Your task to perform on an android device: turn off data saver in the chrome app Image 0: 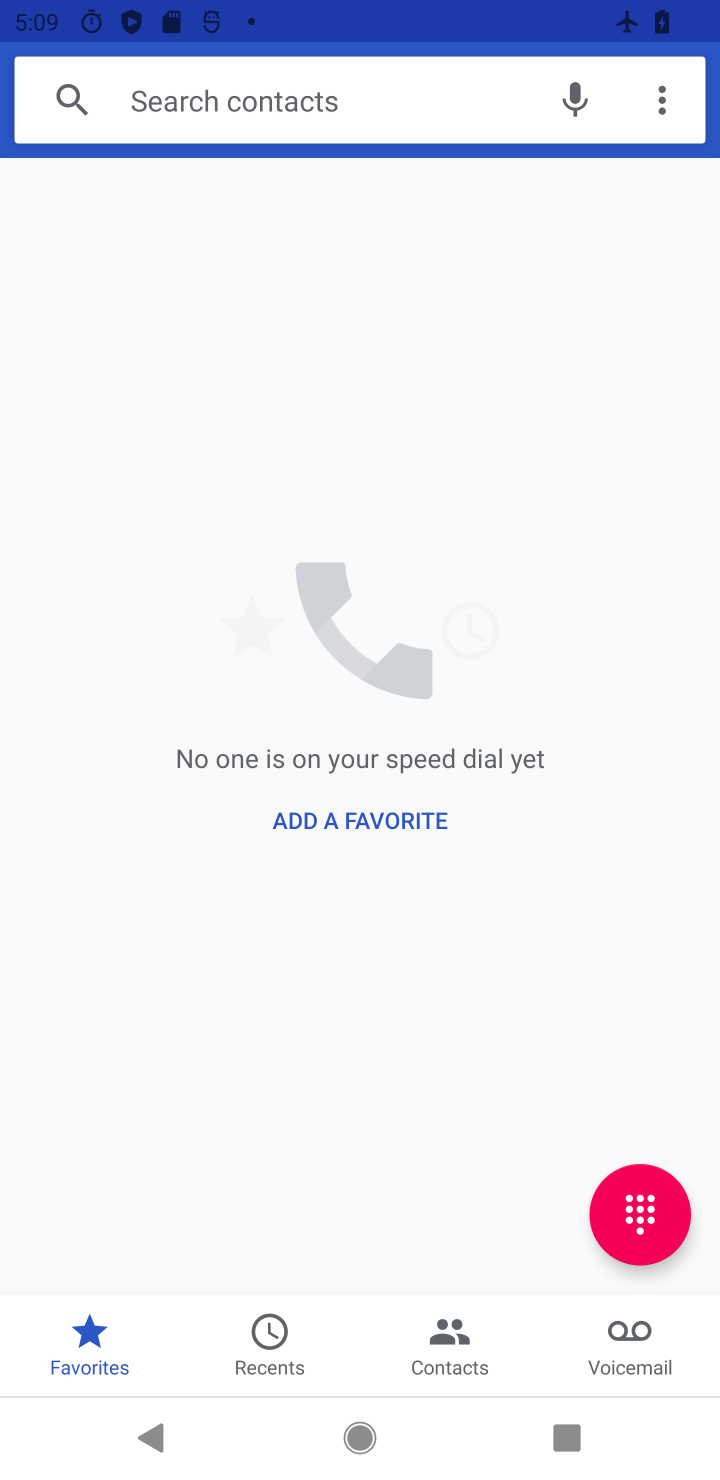
Step 0: click (44, 95)
Your task to perform on an android device: turn off data saver in the chrome app Image 1: 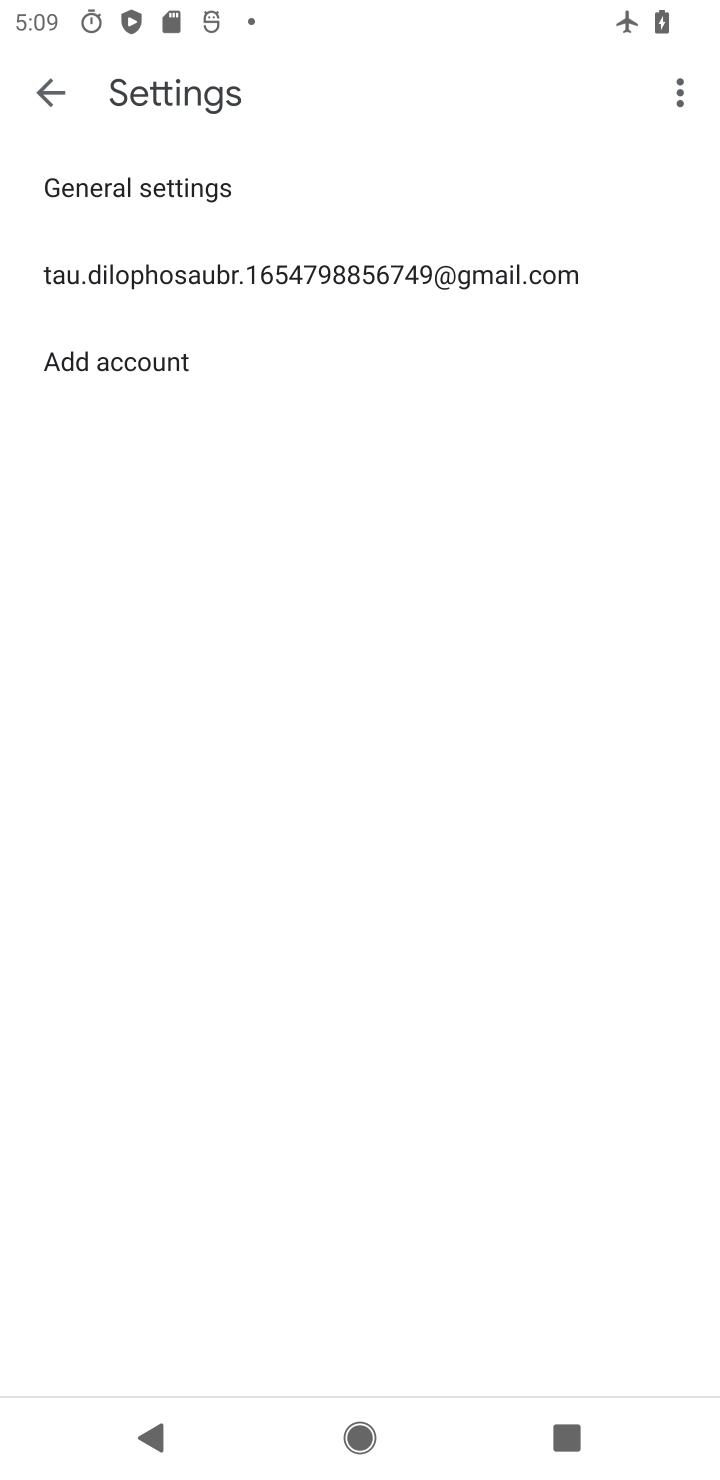
Step 1: press back button
Your task to perform on an android device: turn off data saver in the chrome app Image 2: 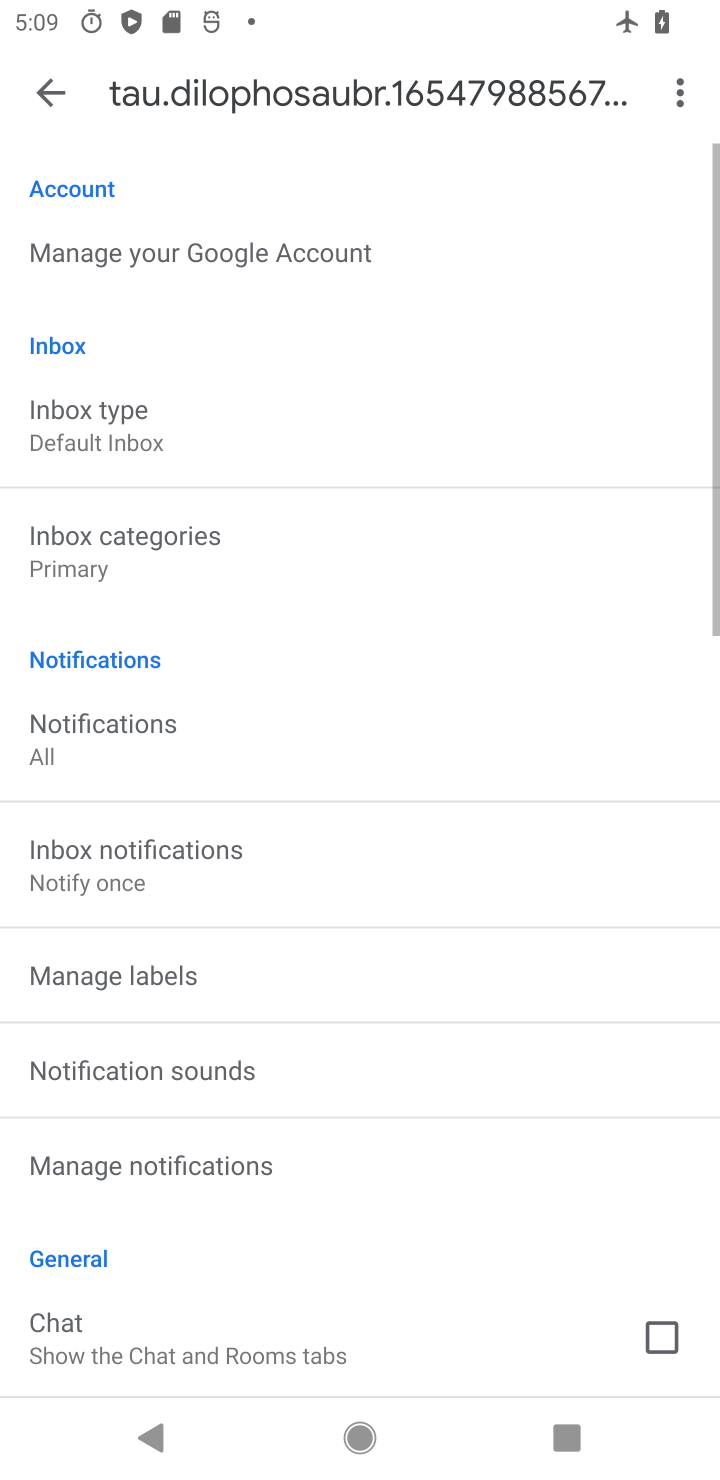
Step 2: click (45, 74)
Your task to perform on an android device: turn off data saver in the chrome app Image 3: 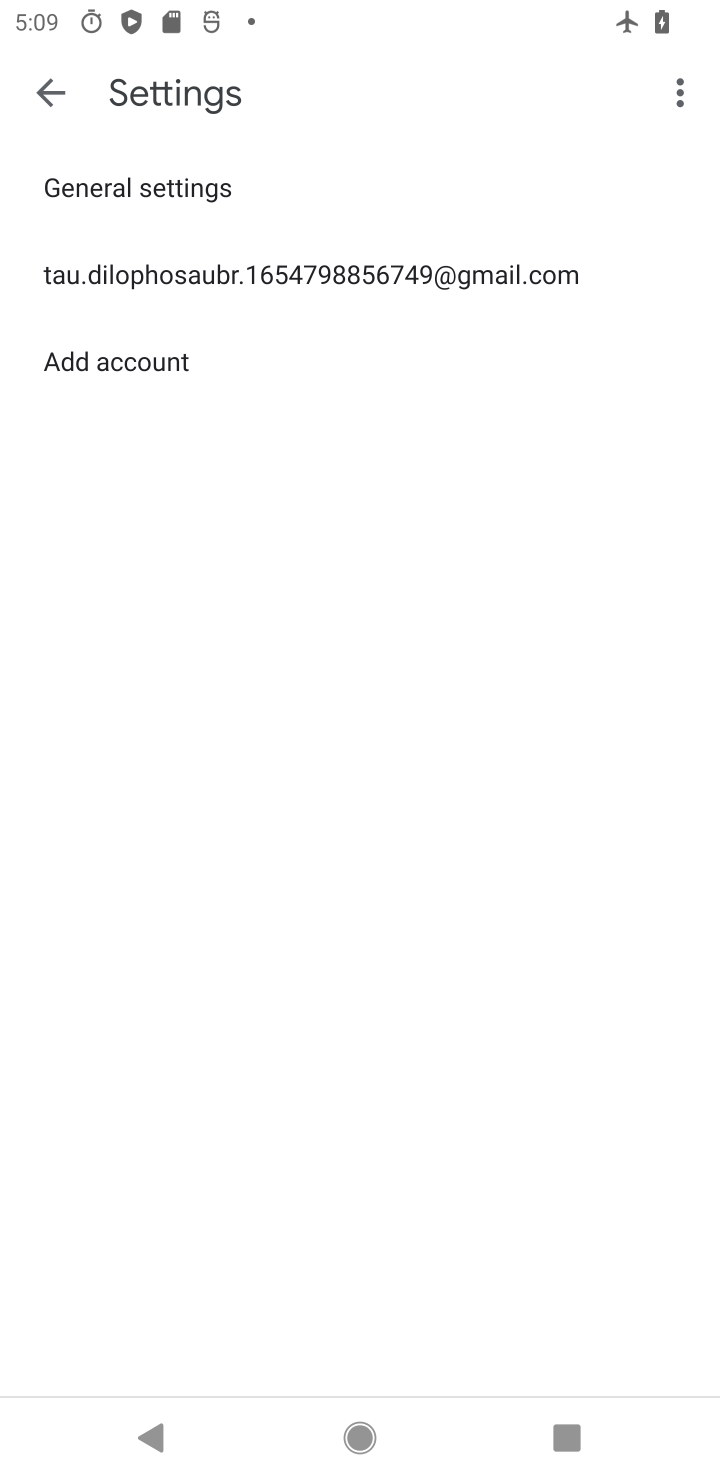
Step 3: click (38, 88)
Your task to perform on an android device: turn off data saver in the chrome app Image 4: 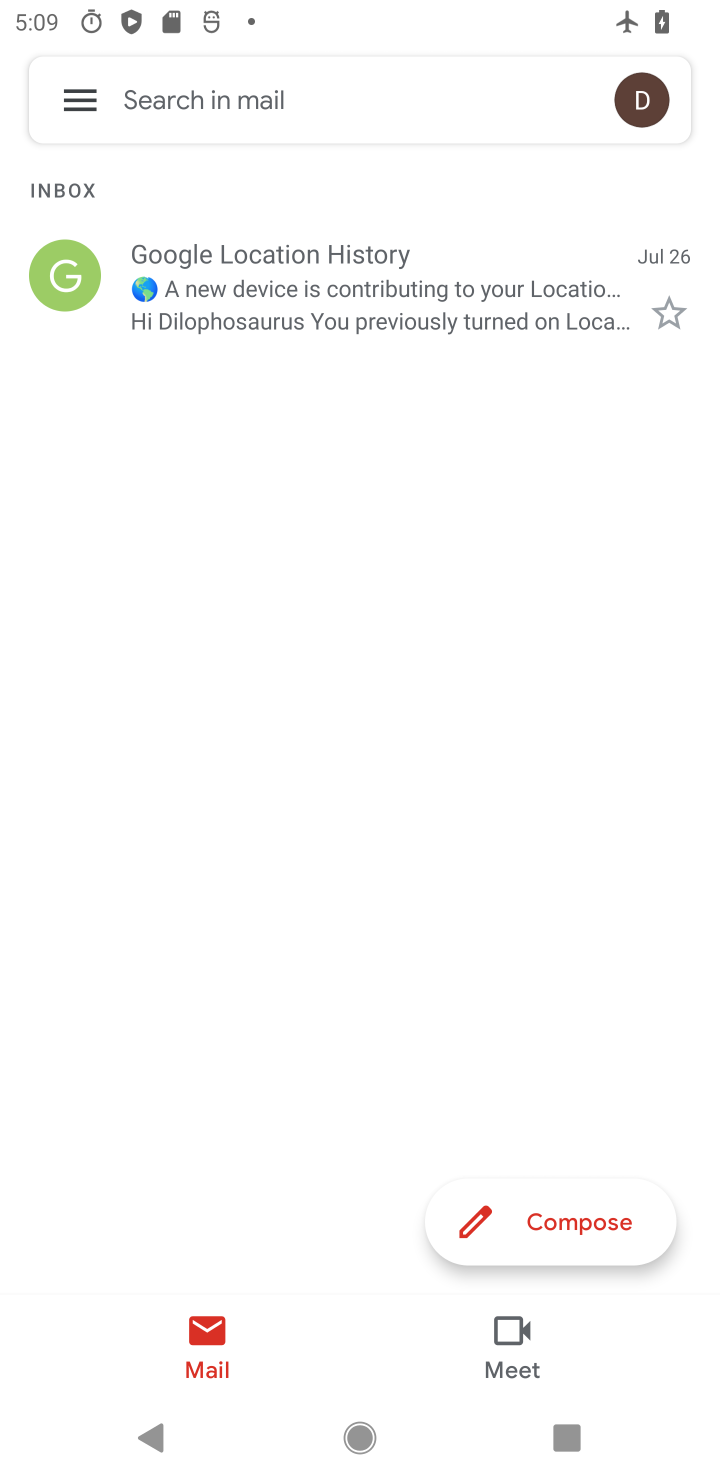
Step 4: press back button
Your task to perform on an android device: turn off data saver in the chrome app Image 5: 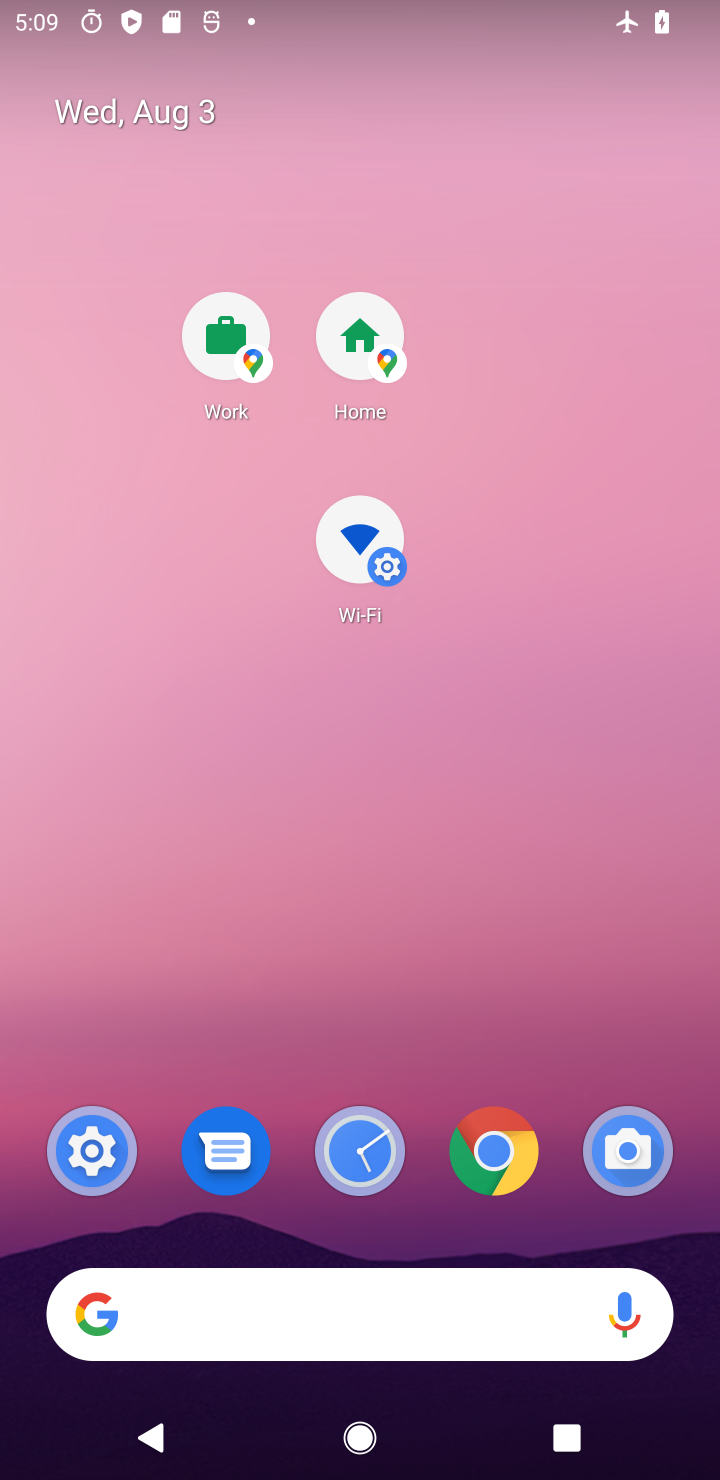
Step 5: drag from (423, 1262) to (227, 376)
Your task to perform on an android device: turn off data saver in the chrome app Image 6: 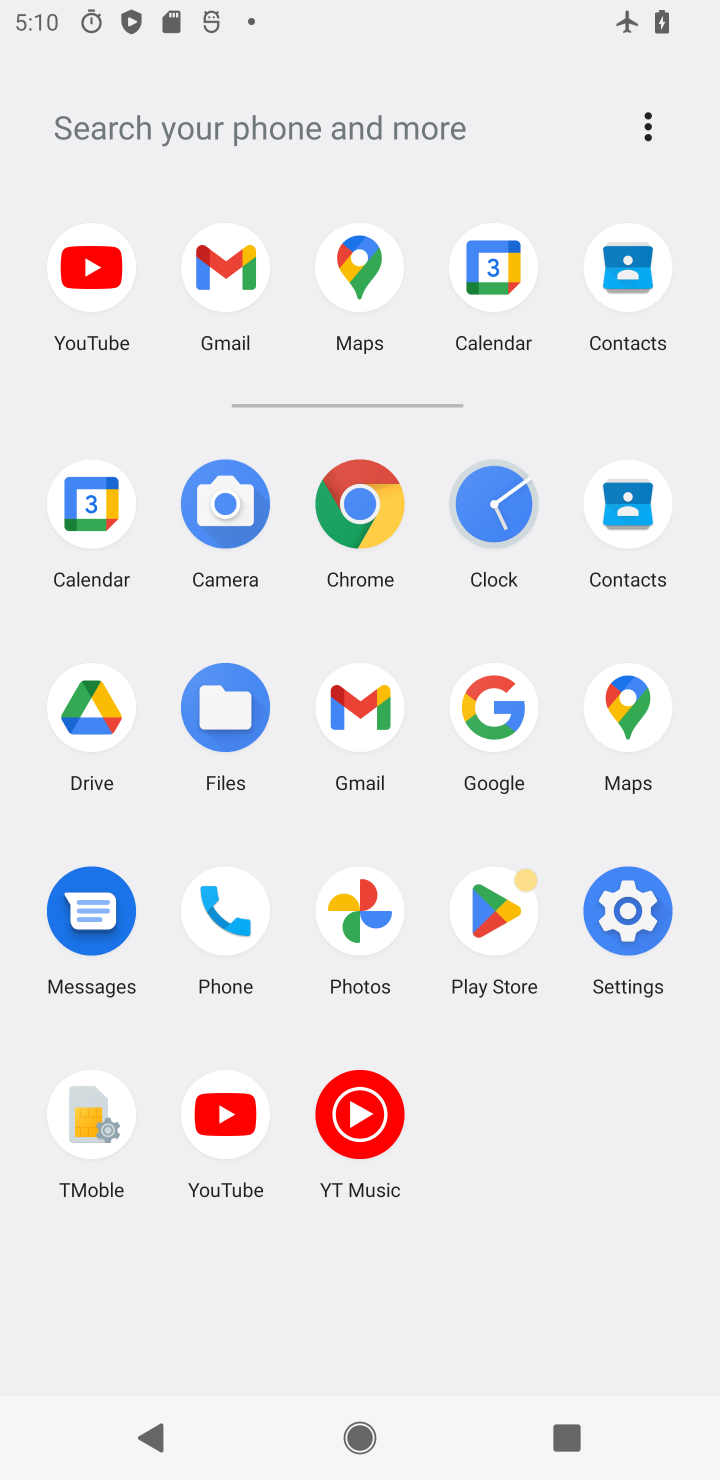
Step 6: click (354, 525)
Your task to perform on an android device: turn off data saver in the chrome app Image 7: 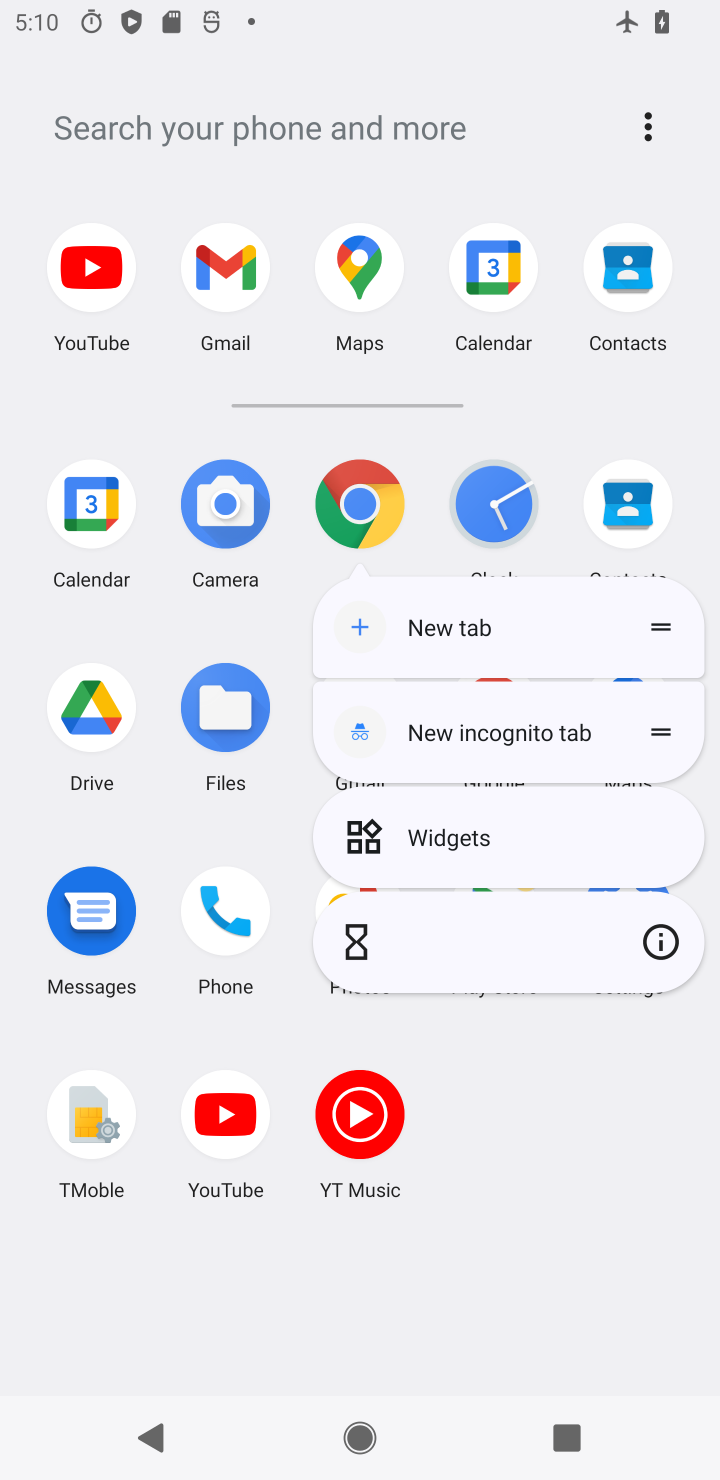
Step 7: click (349, 504)
Your task to perform on an android device: turn off data saver in the chrome app Image 8: 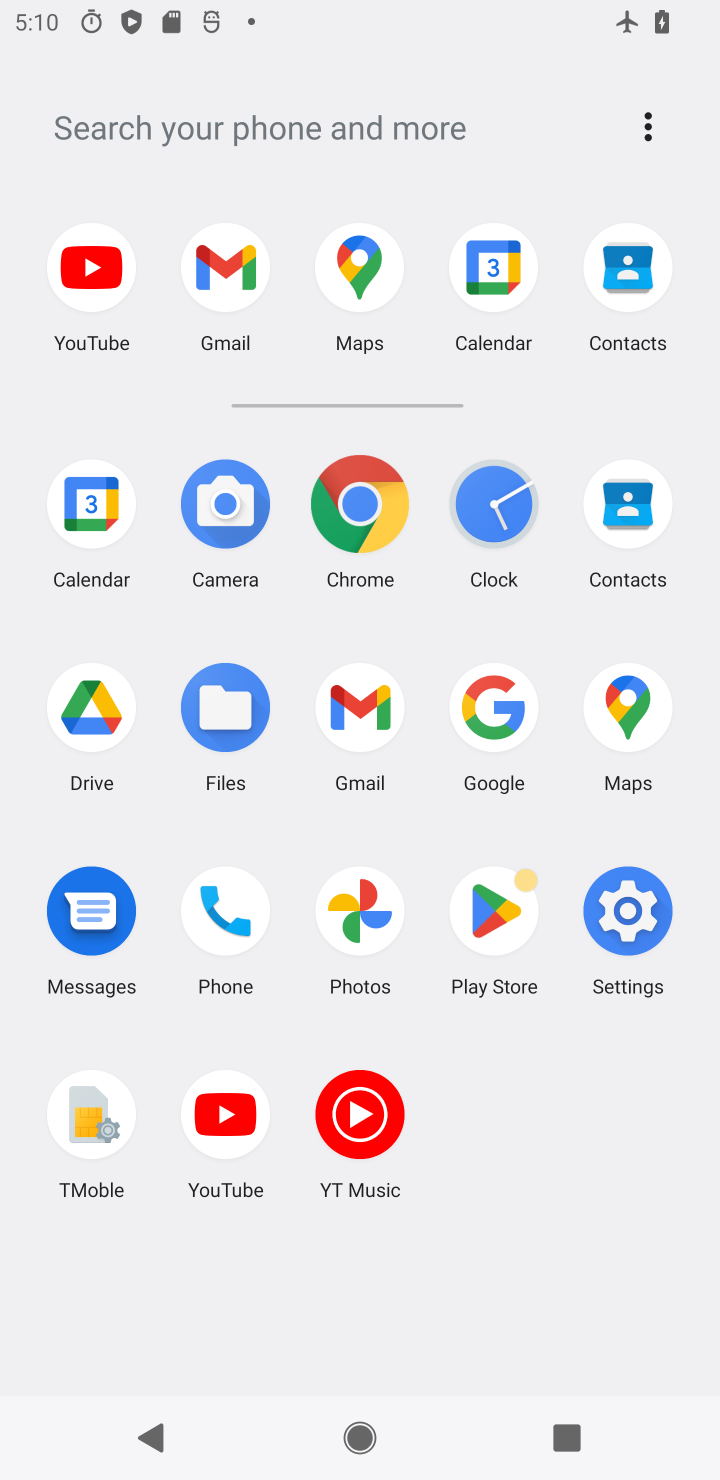
Step 8: click (349, 504)
Your task to perform on an android device: turn off data saver in the chrome app Image 9: 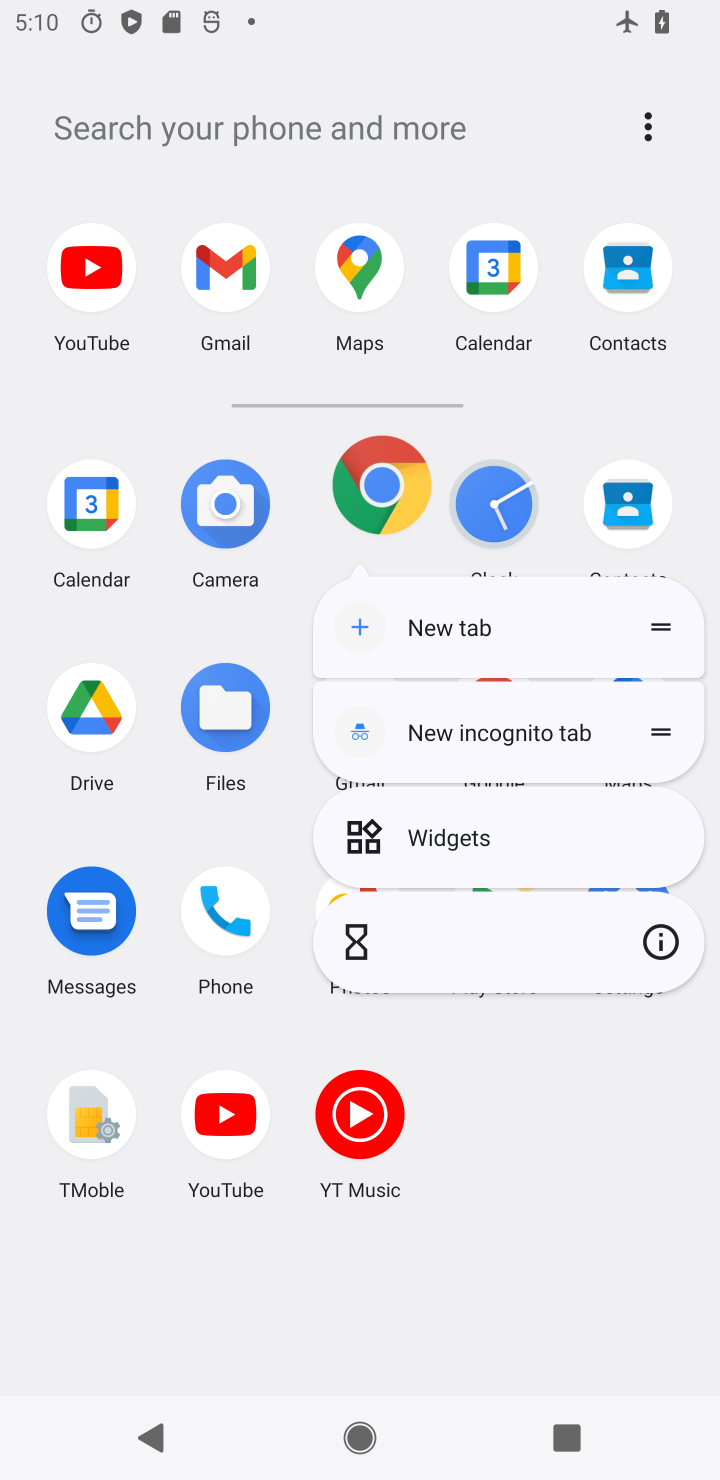
Step 9: click (365, 499)
Your task to perform on an android device: turn off data saver in the chrome app Image 10: 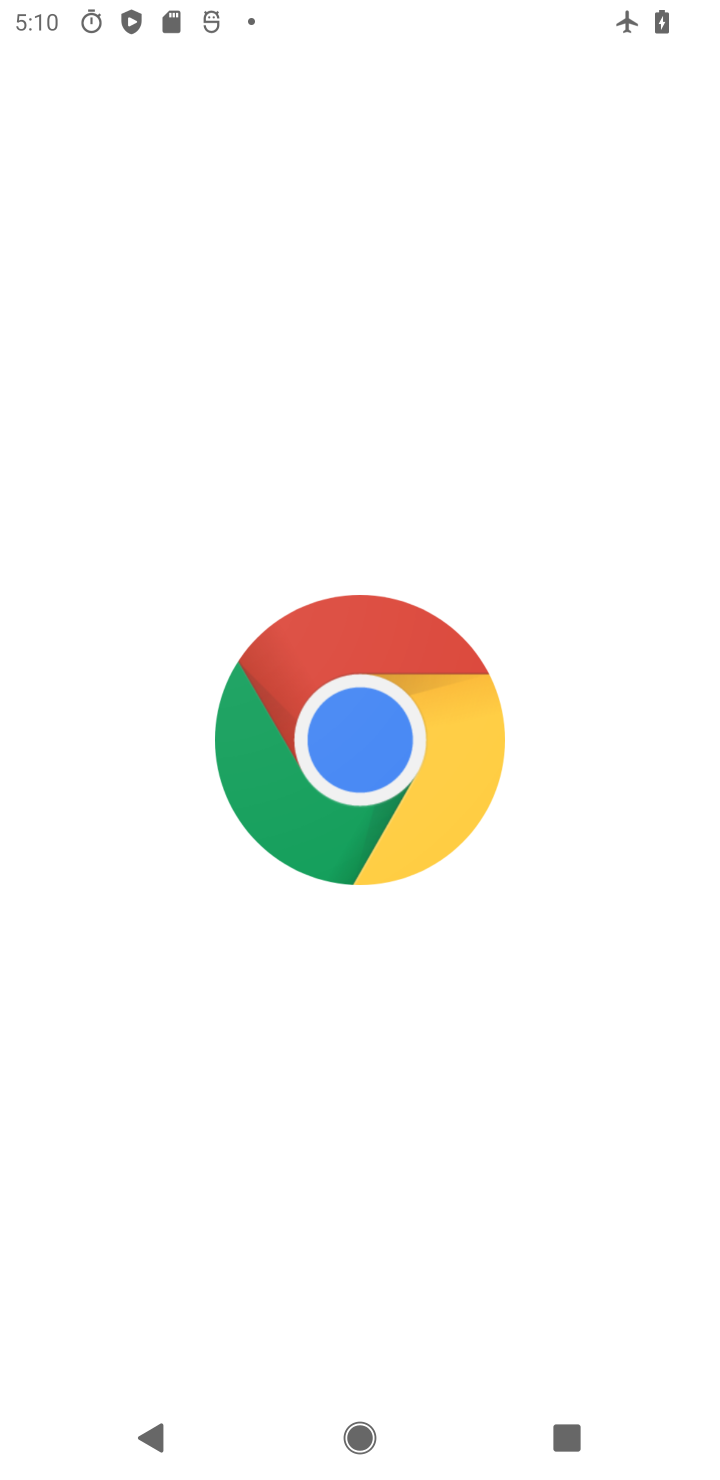
Step 10: click (344, 481)
Your task to perform on an android device: turn off data saver in the chrome app Image 11: 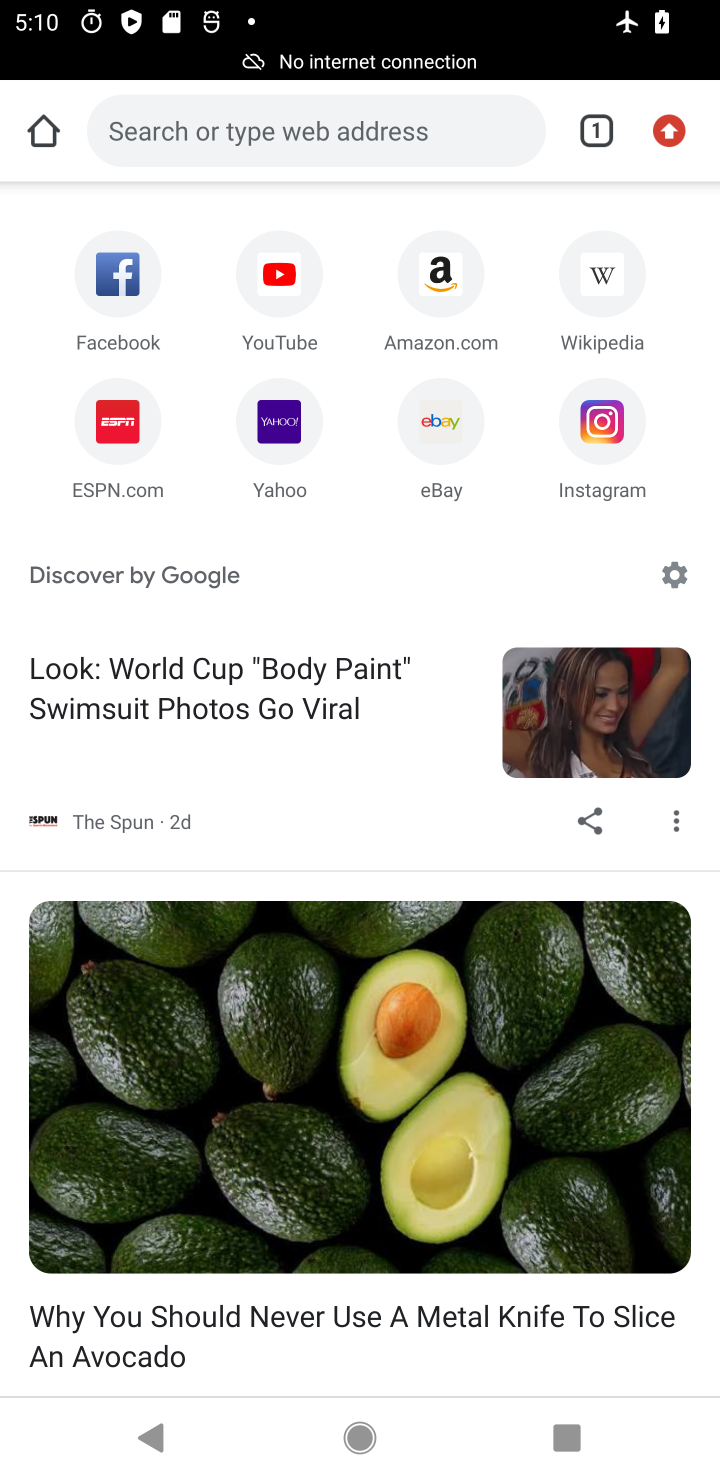
Step 11: drag from (713, 256) to (715, 765)
Your task to perform on an android device: turn off data saver in the chrome app Image 12: 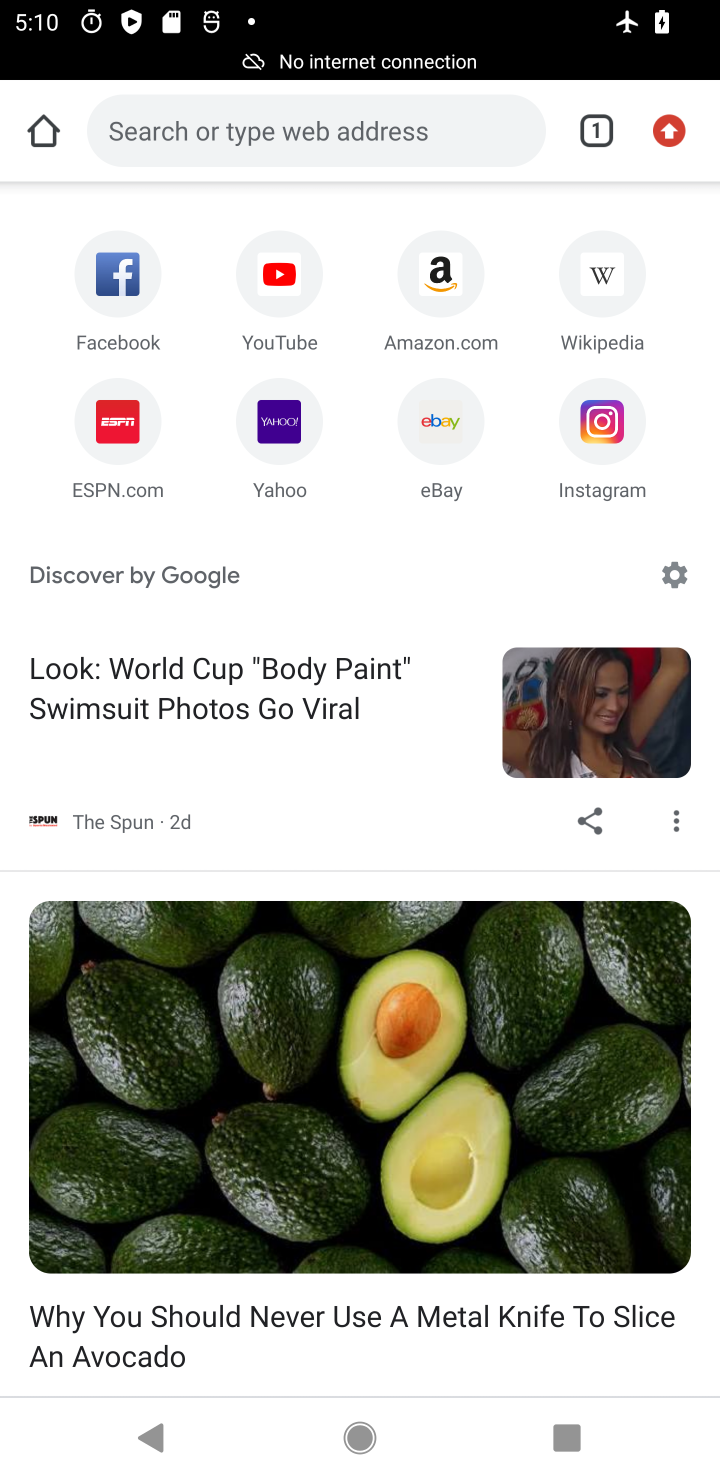
Step 12: drag from (661, 168) to (623, 916)
Your task to perform on an android device: turn off data saver in the chrome app Image 13: 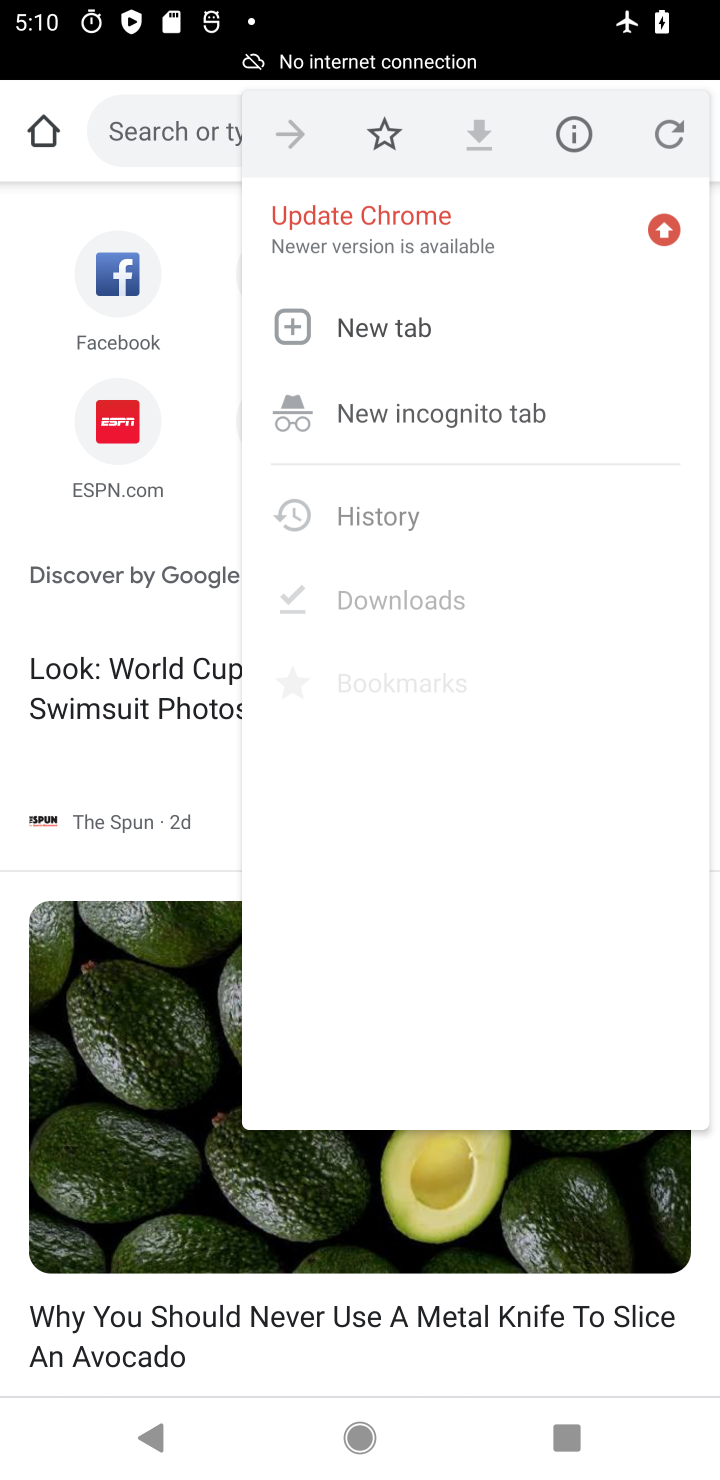
Step 13: drag from (665, 126) to (360, 1009)
Your task to perform on an android device: turn off data saver in the chrome app Image 14: 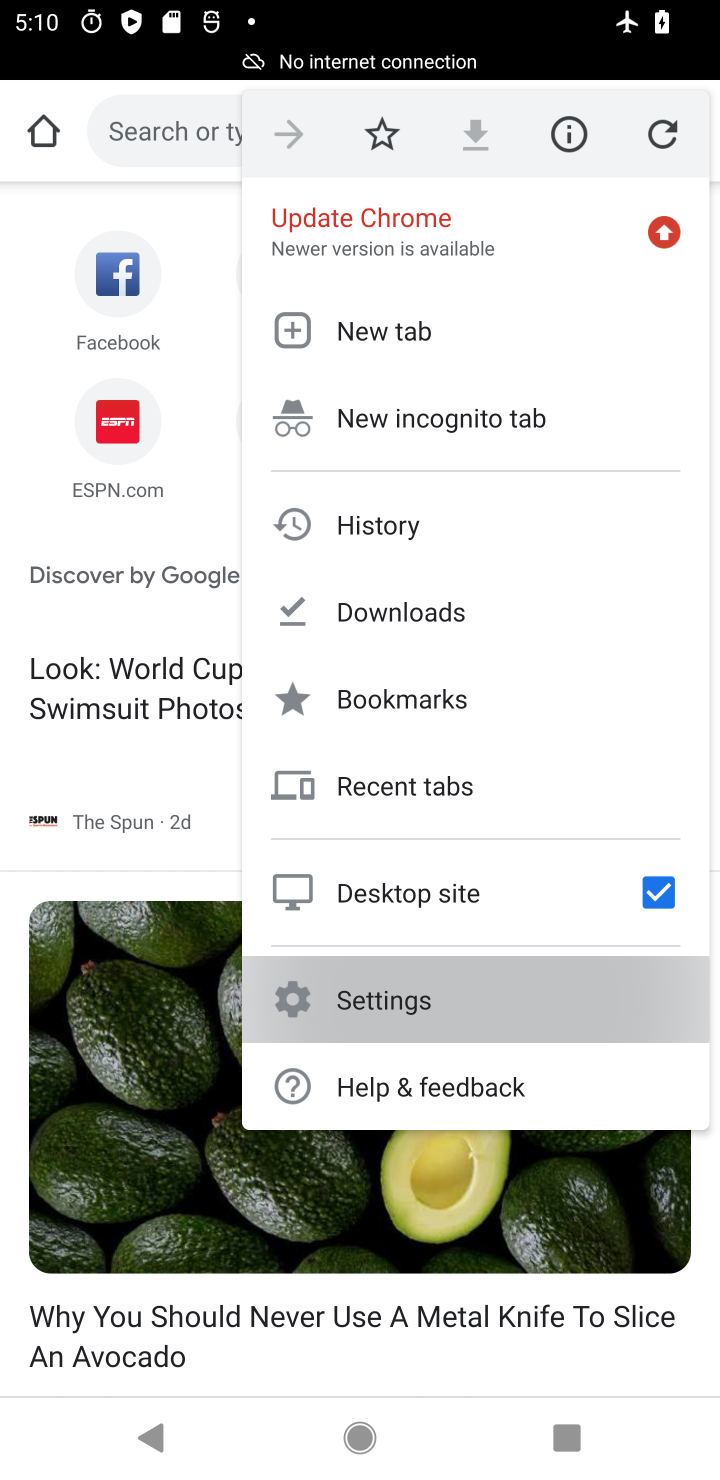
Step 14: click (360, 1011)
Your task to perform on an android device: turn off data saver in the chrome app Image 15: 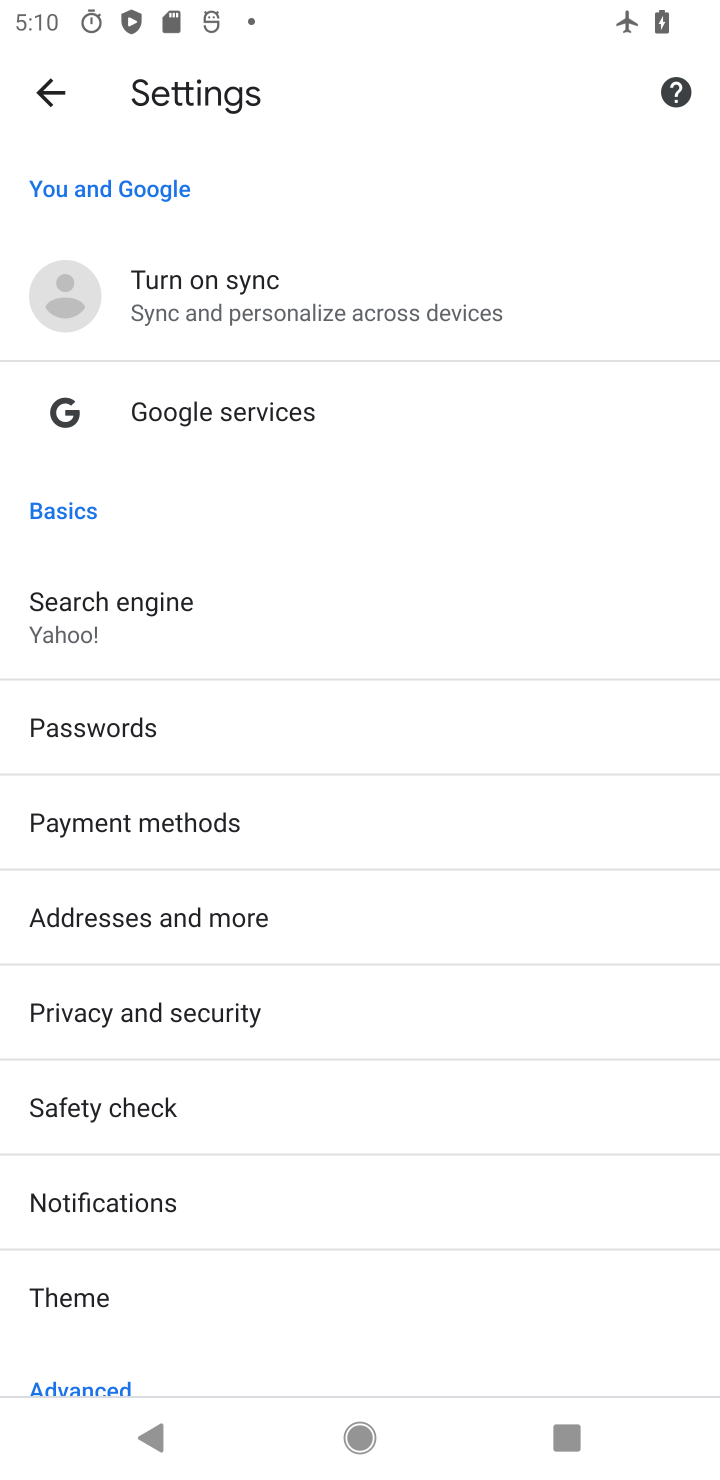
Step 15: drag from (112, 785) to (76, 437)
Your task to perform on an android device: turn off data saver in the chrome app Image 16: 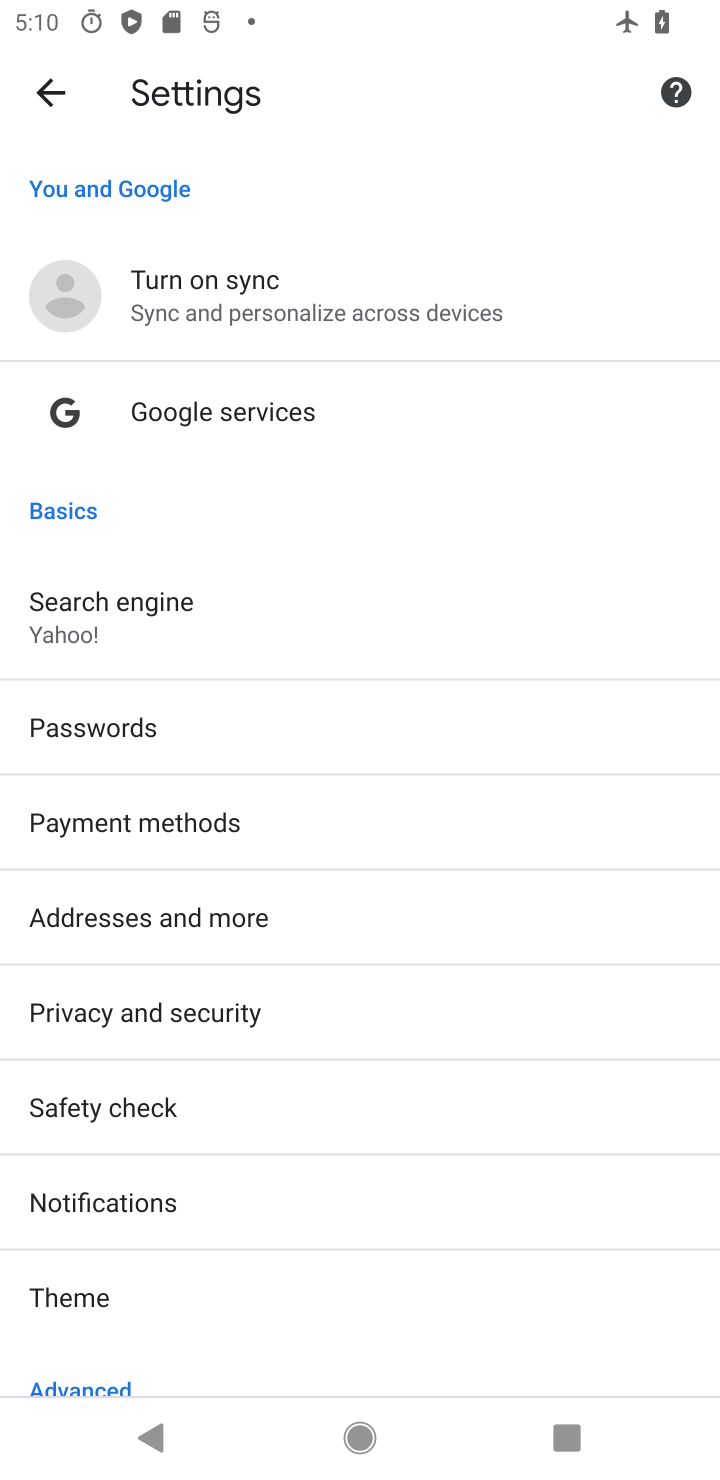
Step 16: drag from (135, 1085) to (43, 670)
Your task to perform on an android device: turn off data saver in the chrome app Image 17: 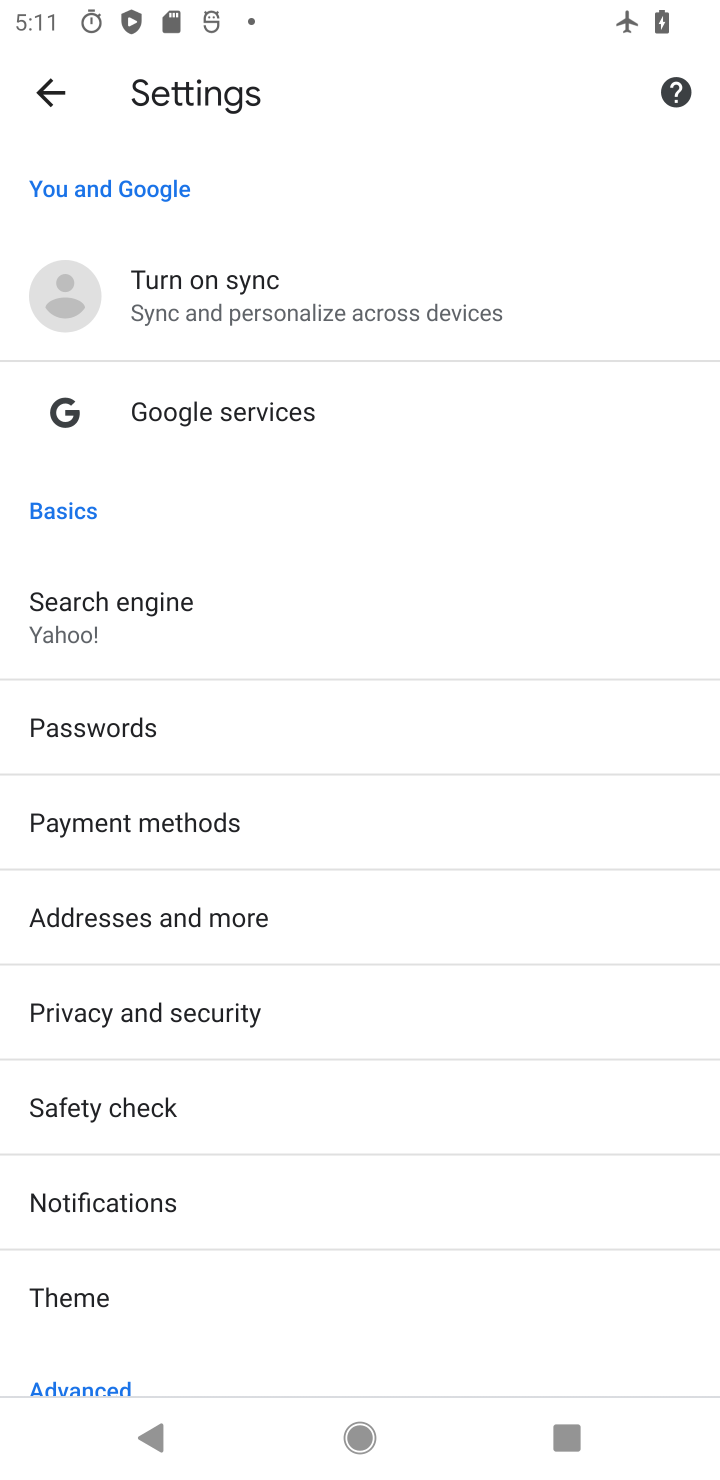
Step 17: drag from (247, 1161) to (262, 660)
Your task to perform on an android device: turn off data saver in the chrome app Image 18: 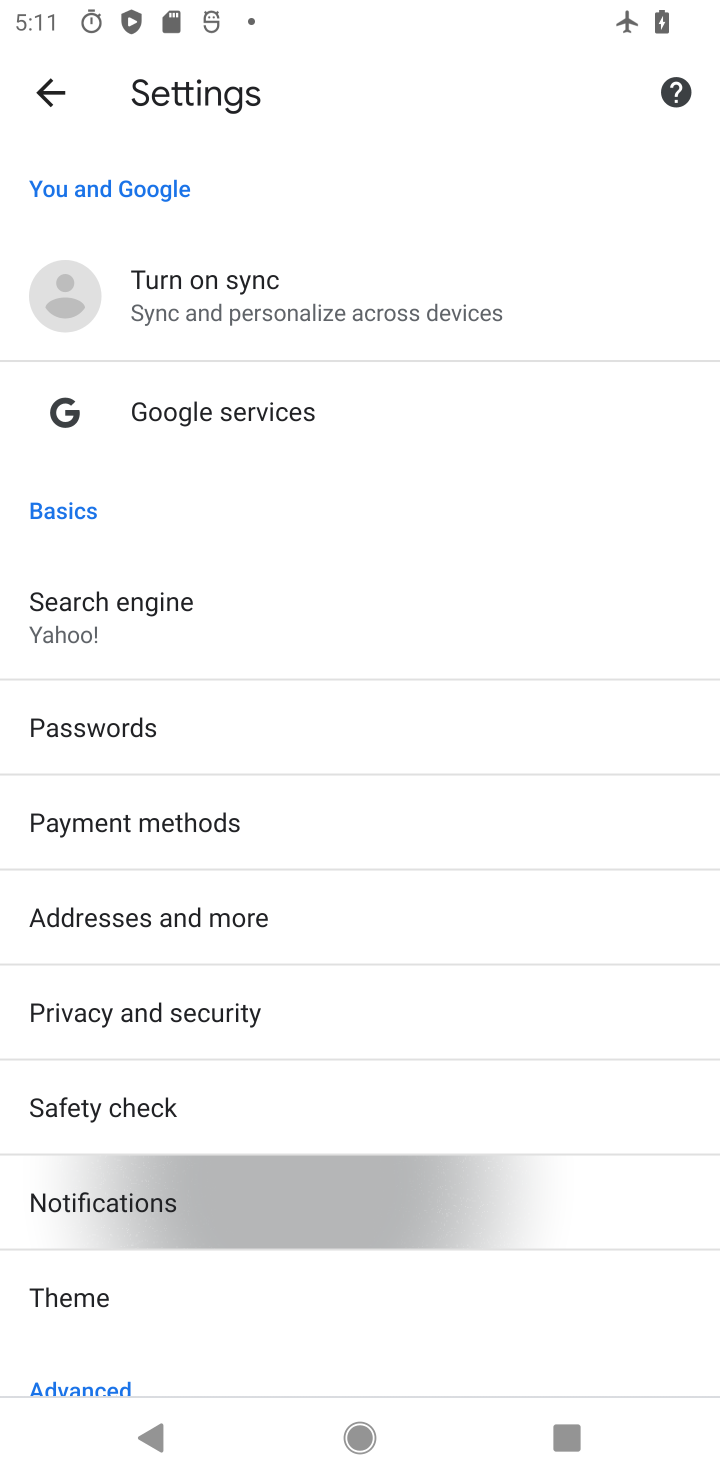
Step 18: drag from (258, 800) to (258, 476)
Your task to perform on an android device: turn off data saver in the chrome app Image 19: 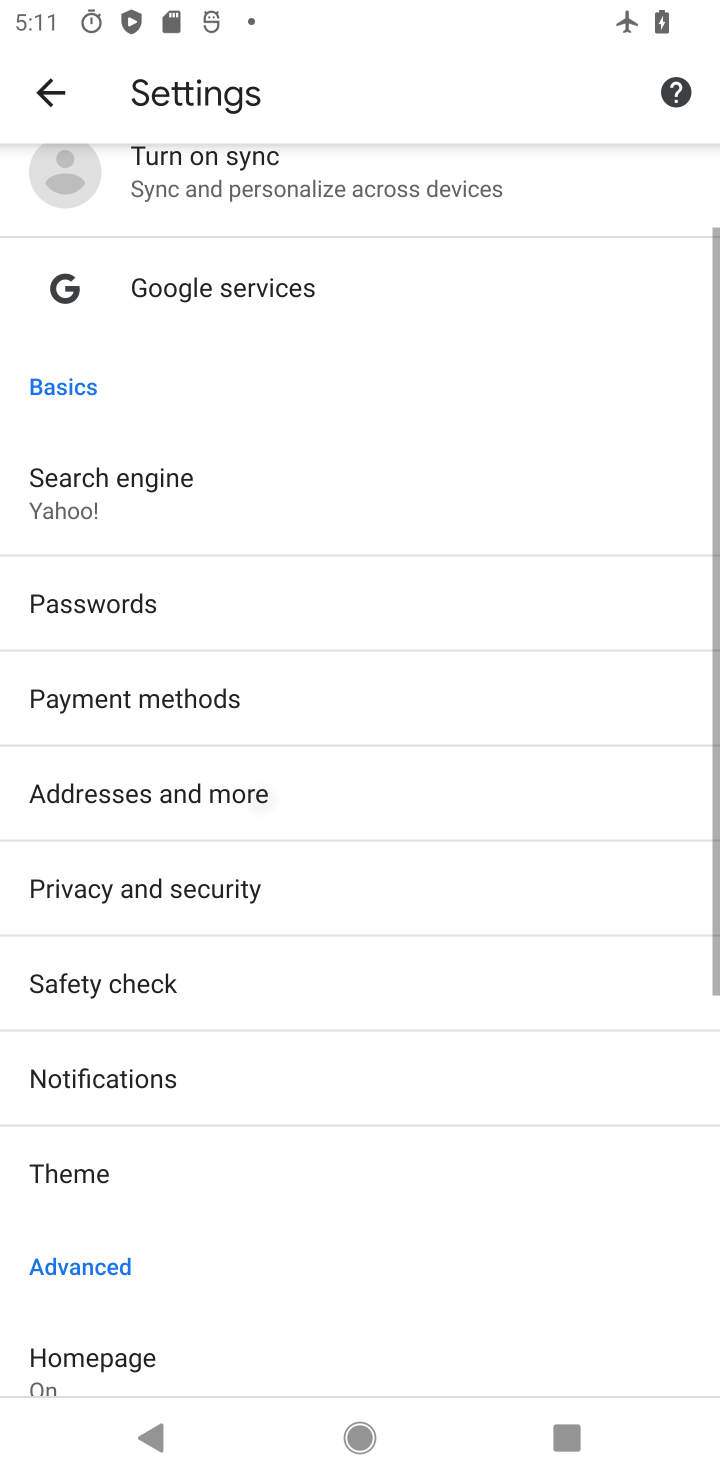
Step 19: drag from (264, 750) to (264, 414)
Your task to perform on an android device: turn off data saver in the chrome app Image 20: 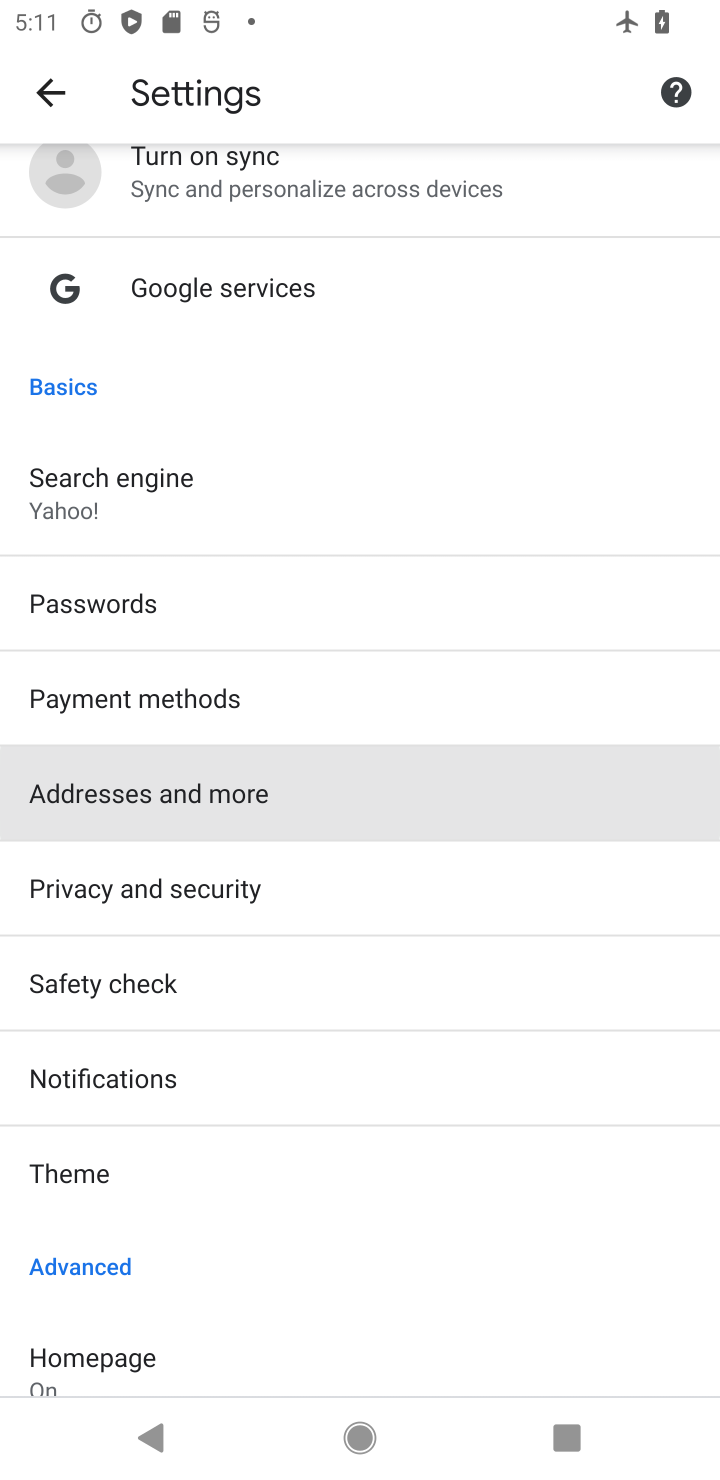
Step 20: drag from (245, 714) to (201, 389)
Your task to perform on an android device: turn off data saver in the chrome app Image 21: 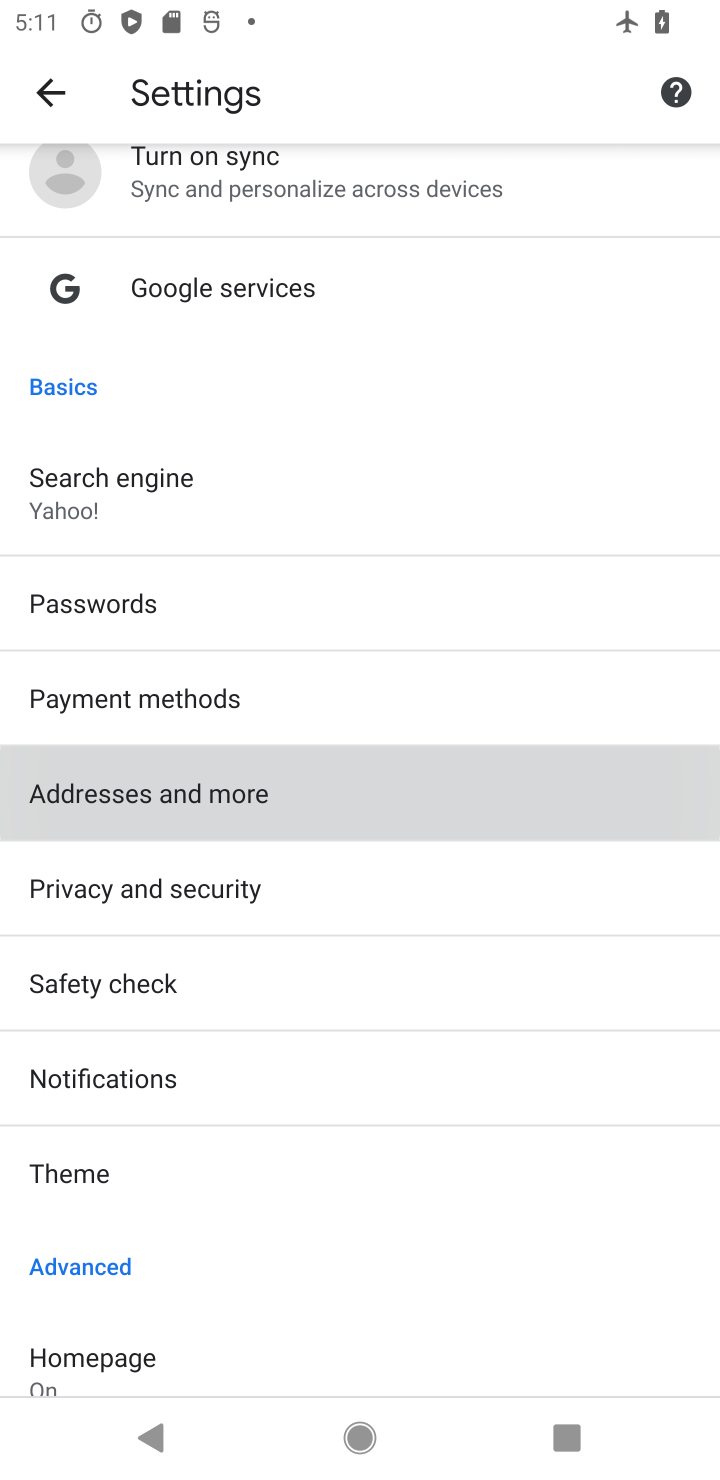
Step 21: drag from (316, 999) to (319, 529)
Your task to perform on an android device: turn off data saver in the chrome app Image 22: 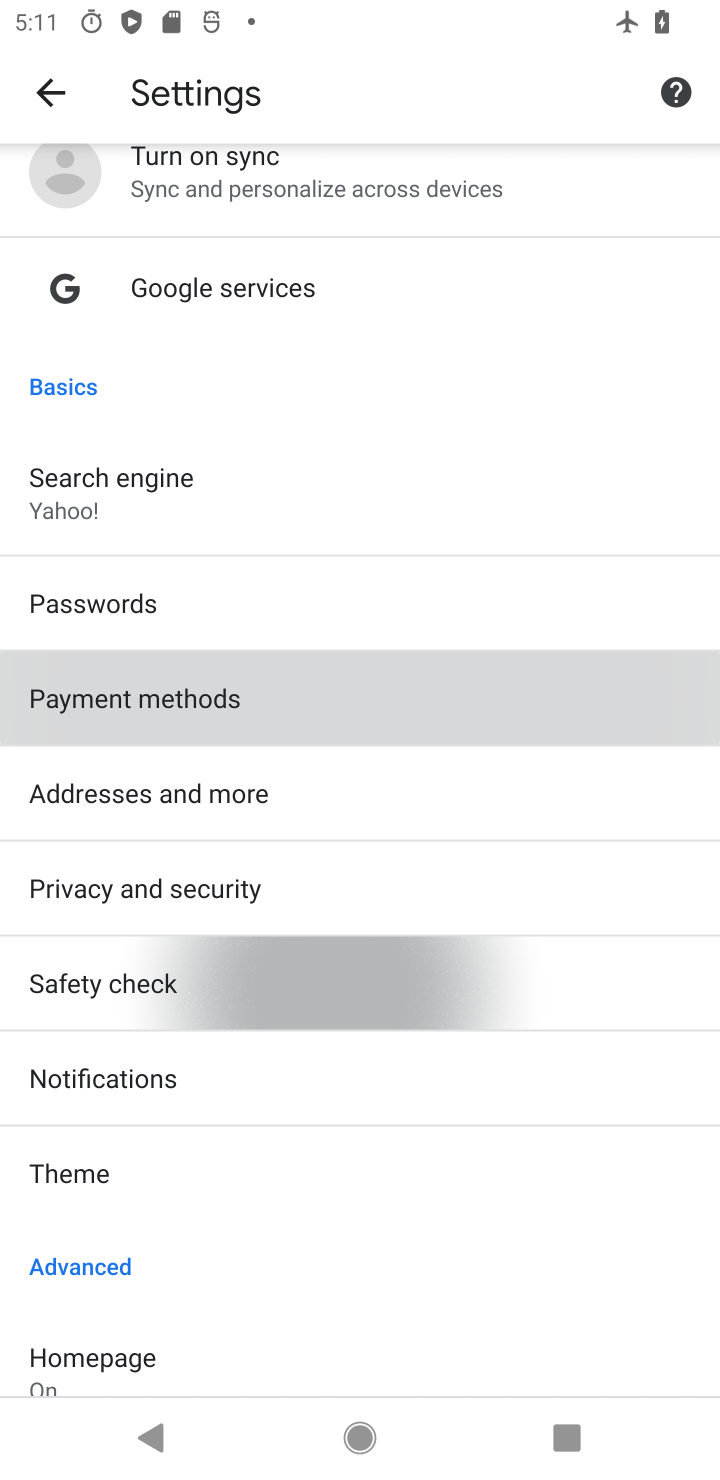
Step 22: click (313, 703)
Your task to perform on an android device: turn off data saver in the chrome app Image 23: 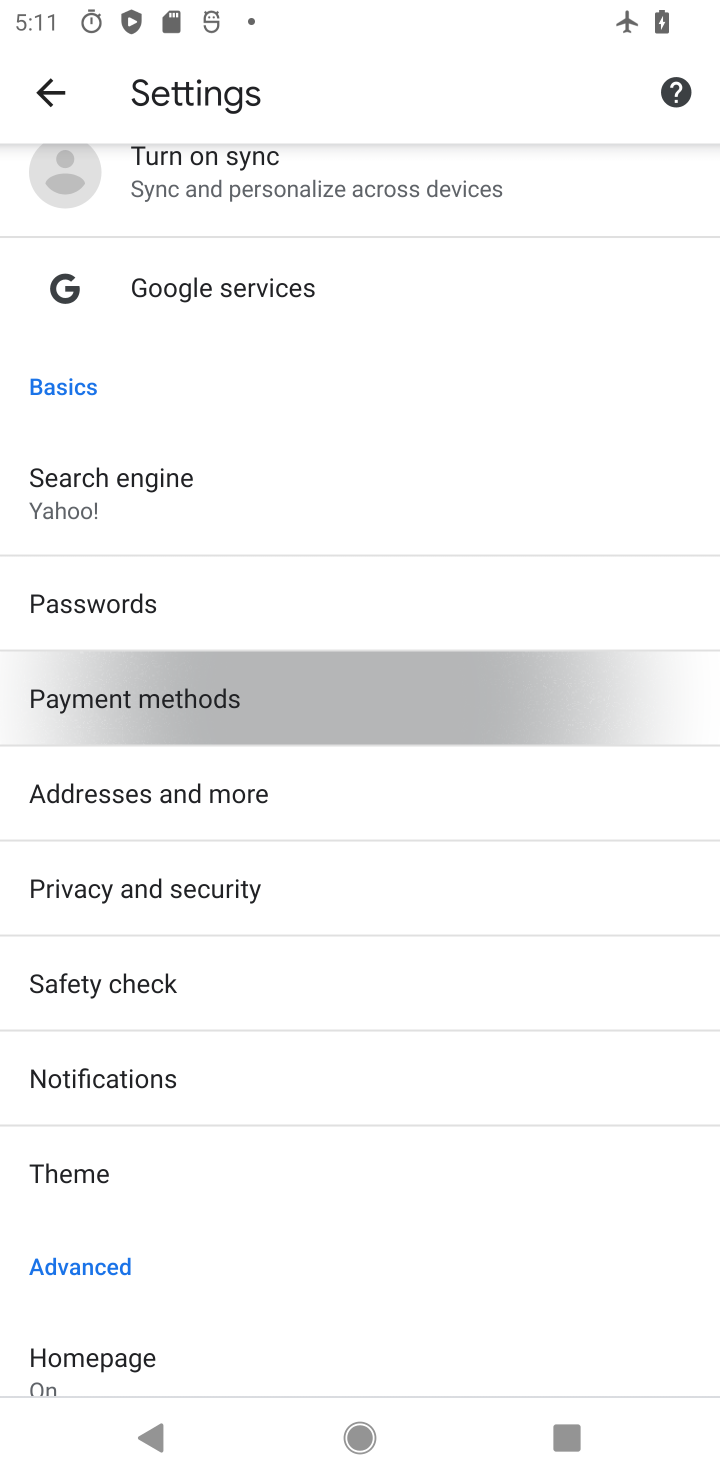
Step 23: drag from (213, 1316) to (204, 860)
Your task to perform on an android device: turn off data saver in the chrome app Image 24: 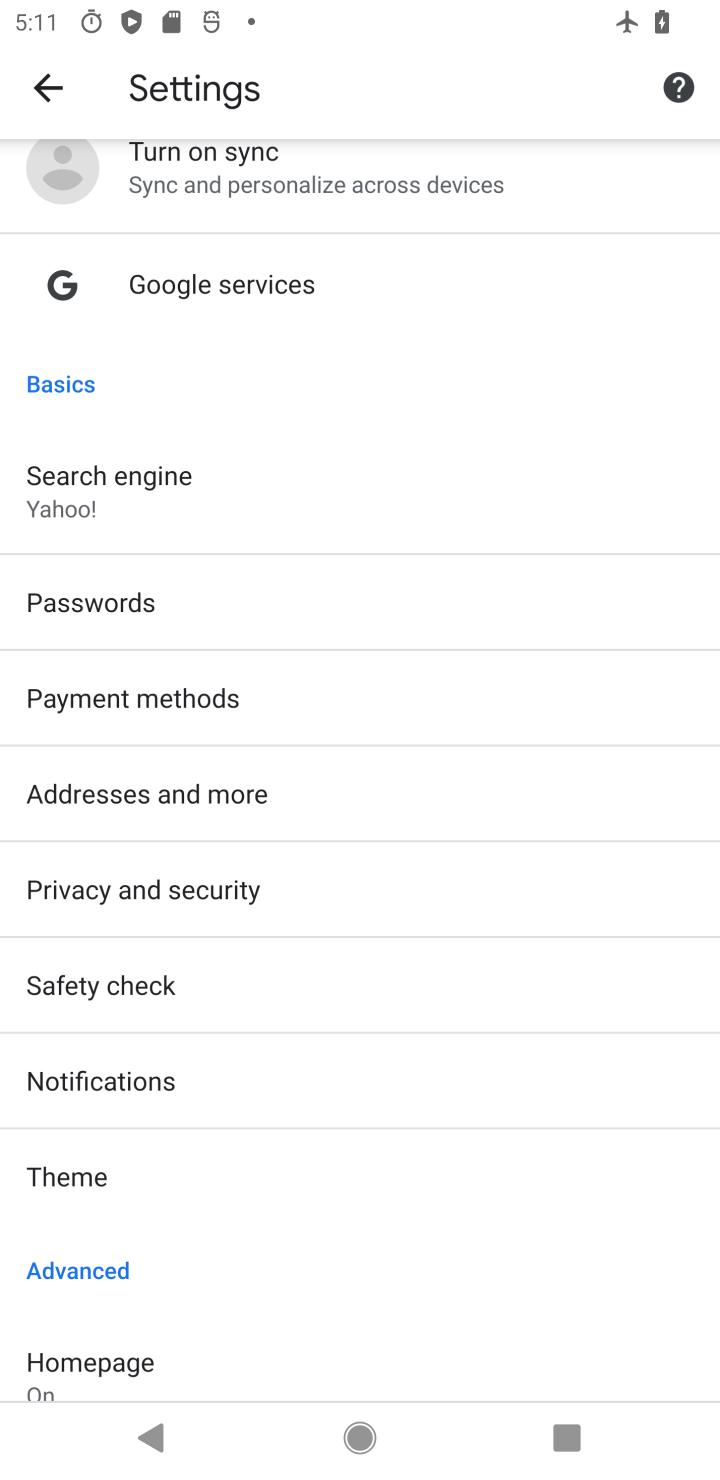
Step 24: drag from (192, 1142) to (220, 563)
Your task to perform on an android device: turn off data saver in the chrome app Image 25: 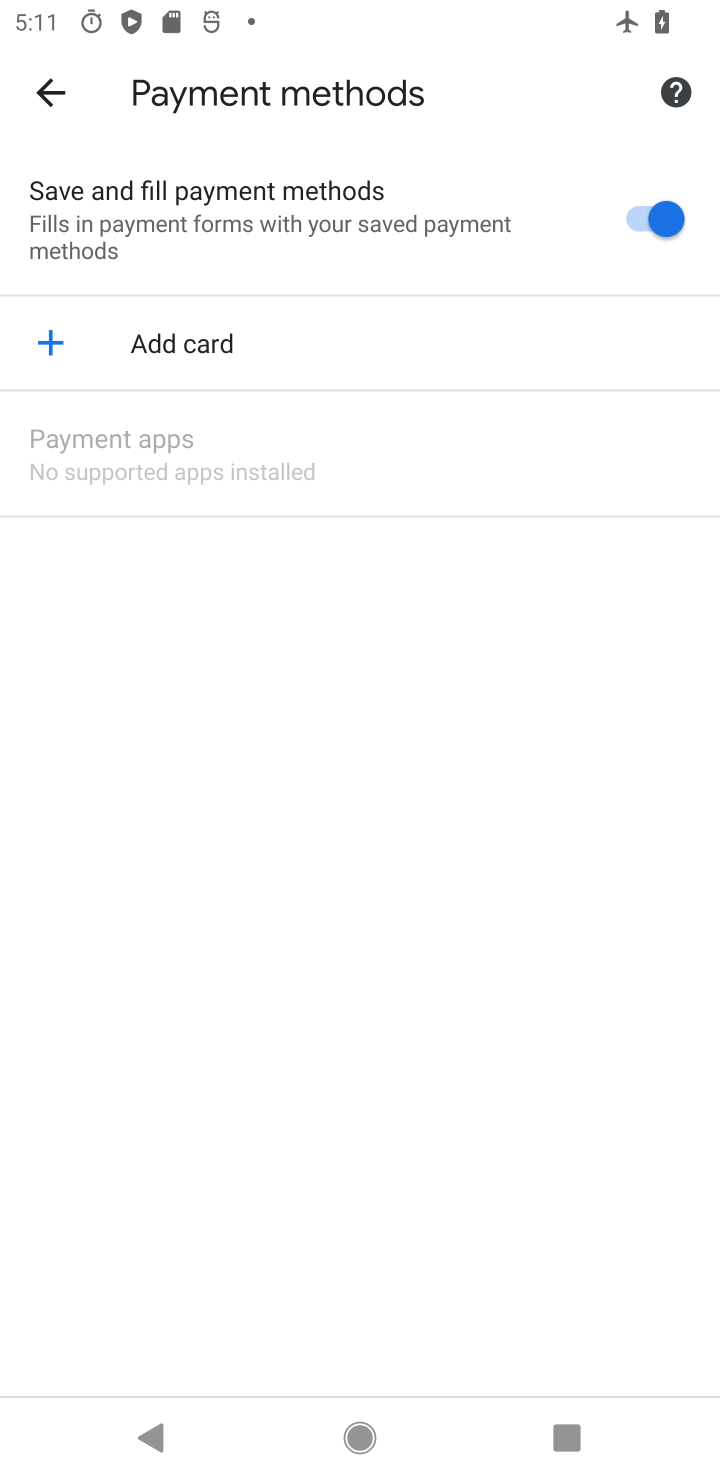
Step 25: drag from (204, 1255) to (221, 675)
Your task to perform on an android device: turn off data saver in the chrome app Image 26: 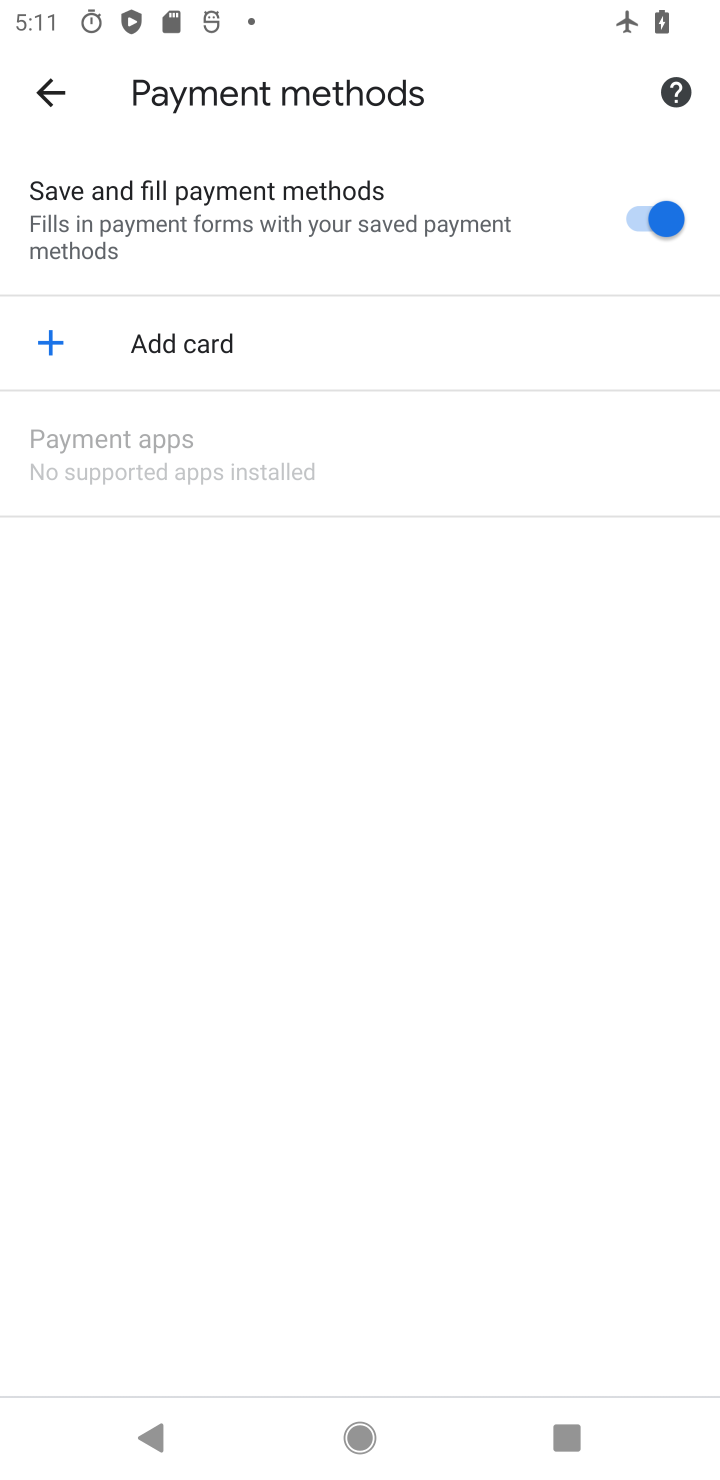
Step 26: click (59, 100)
Your task to perform on an android device: turn off data saver in the chrome app Image 27: 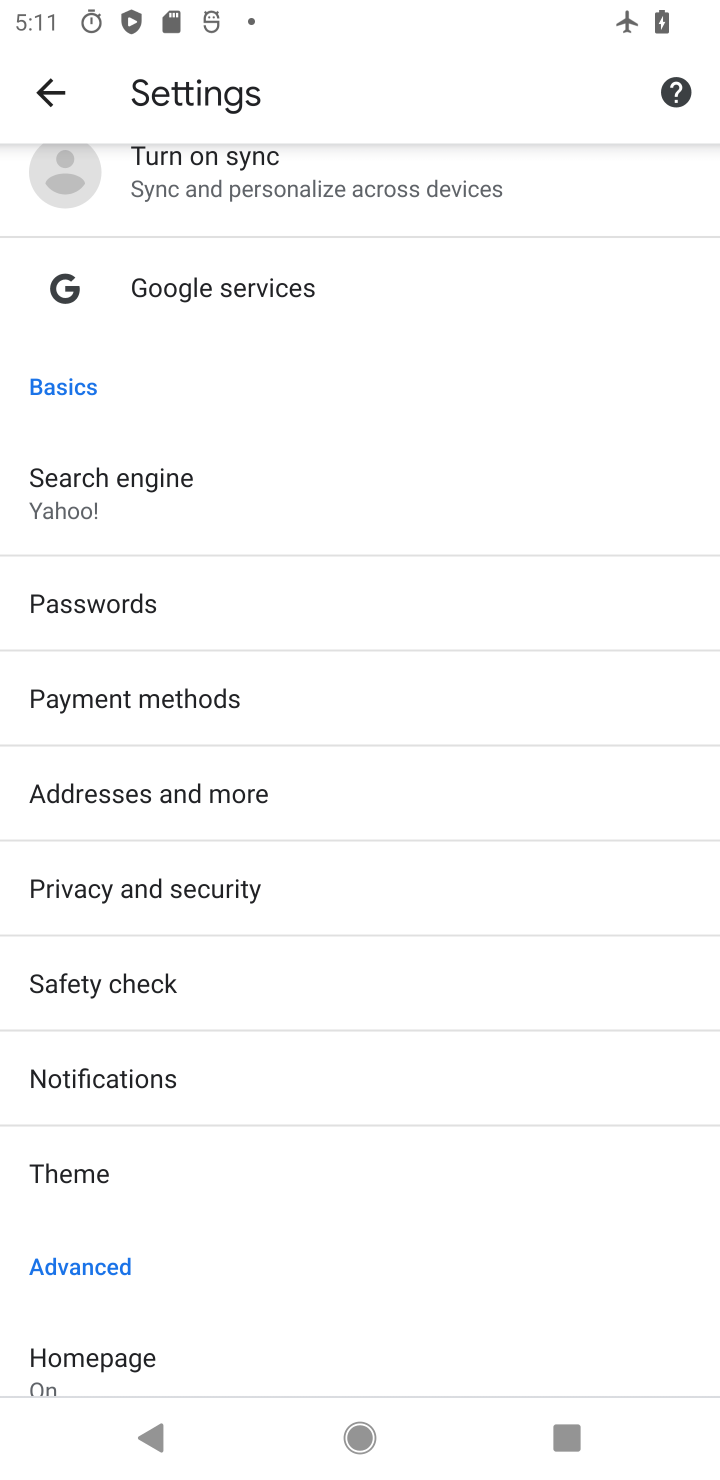
Step 27: drag from (142, 1025) to (89, 445)
Your task to perform on an android device: turn off data saver in the chrome app Image 28: 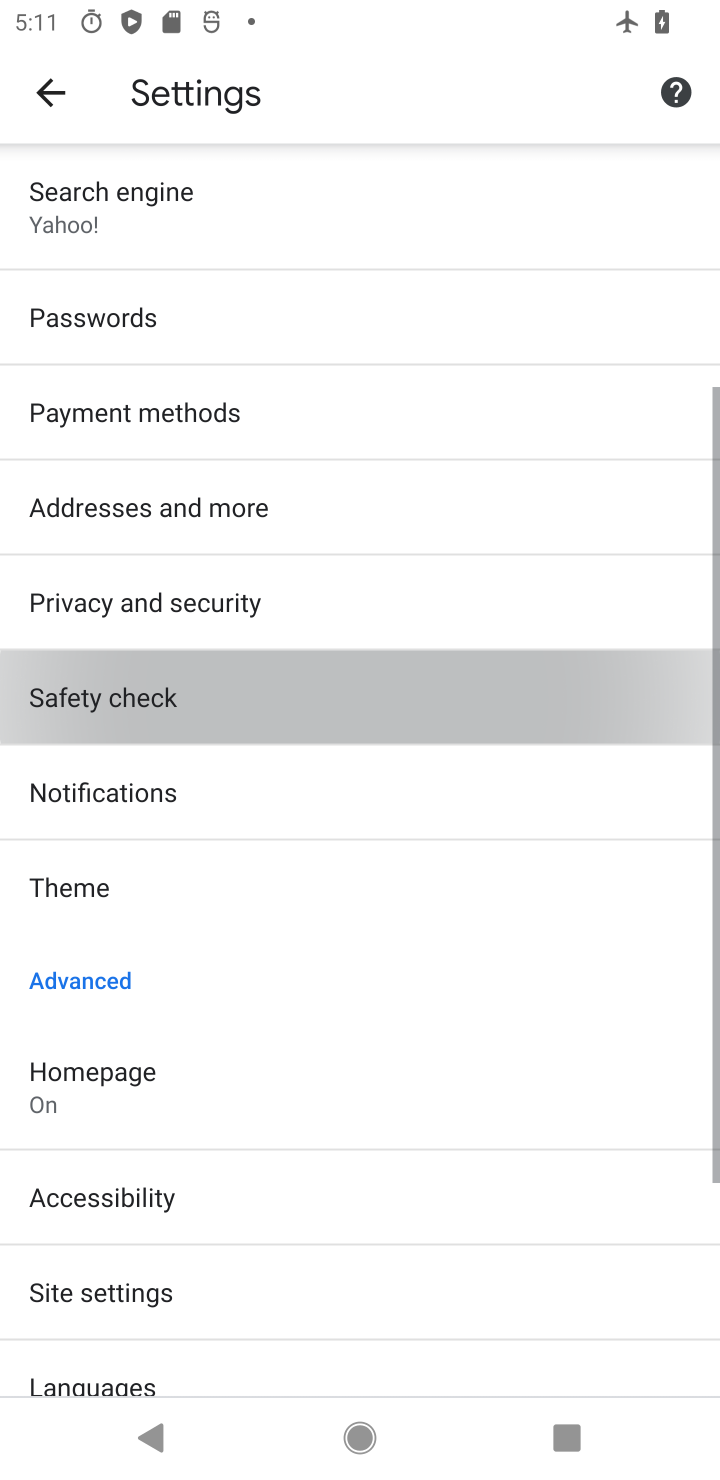
Step 28: drag from (184, 807) to (189, 314)
Your task to perform on an android device: turn off data saver in the chrome app Image 29: 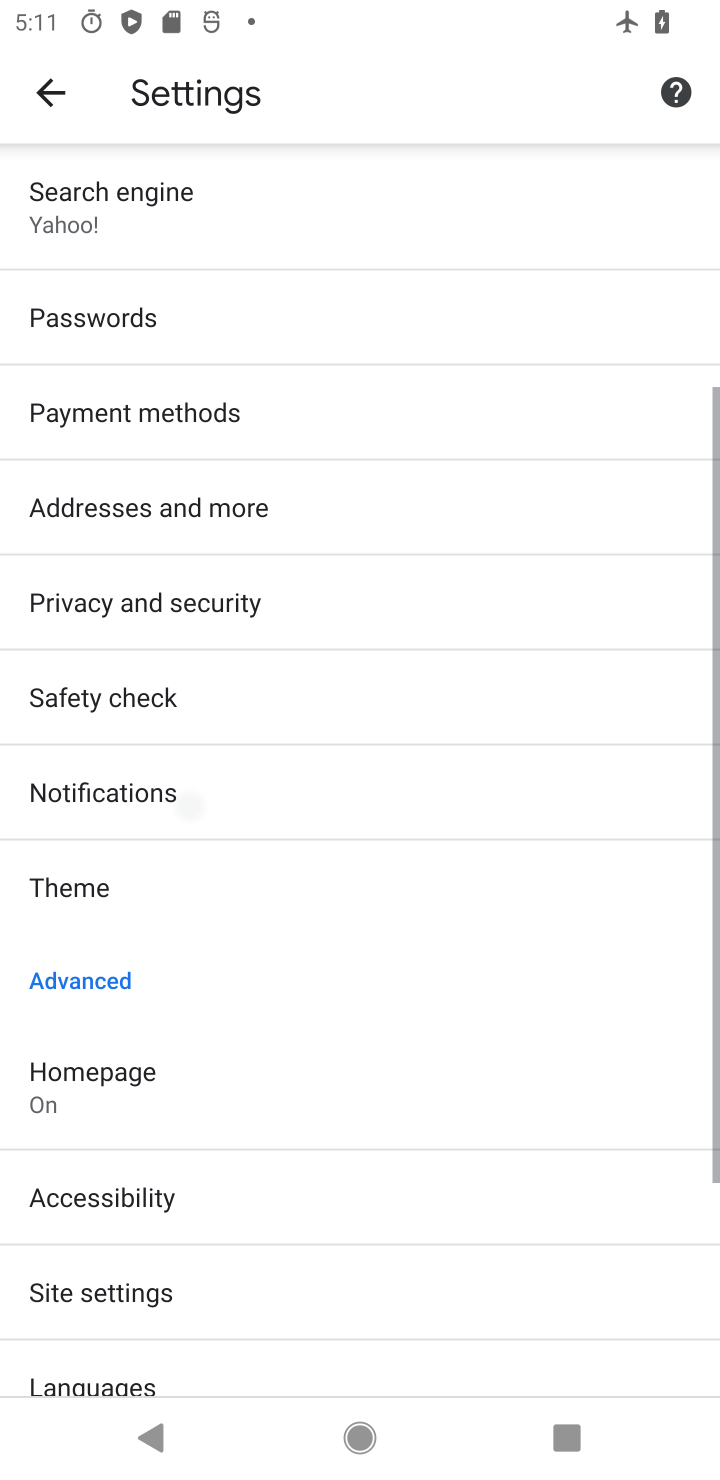
Step 29: drag from (366, 1049) to (231, 499)
Your task to perform on an android device: turn off data saver in the chrome app Image 30: 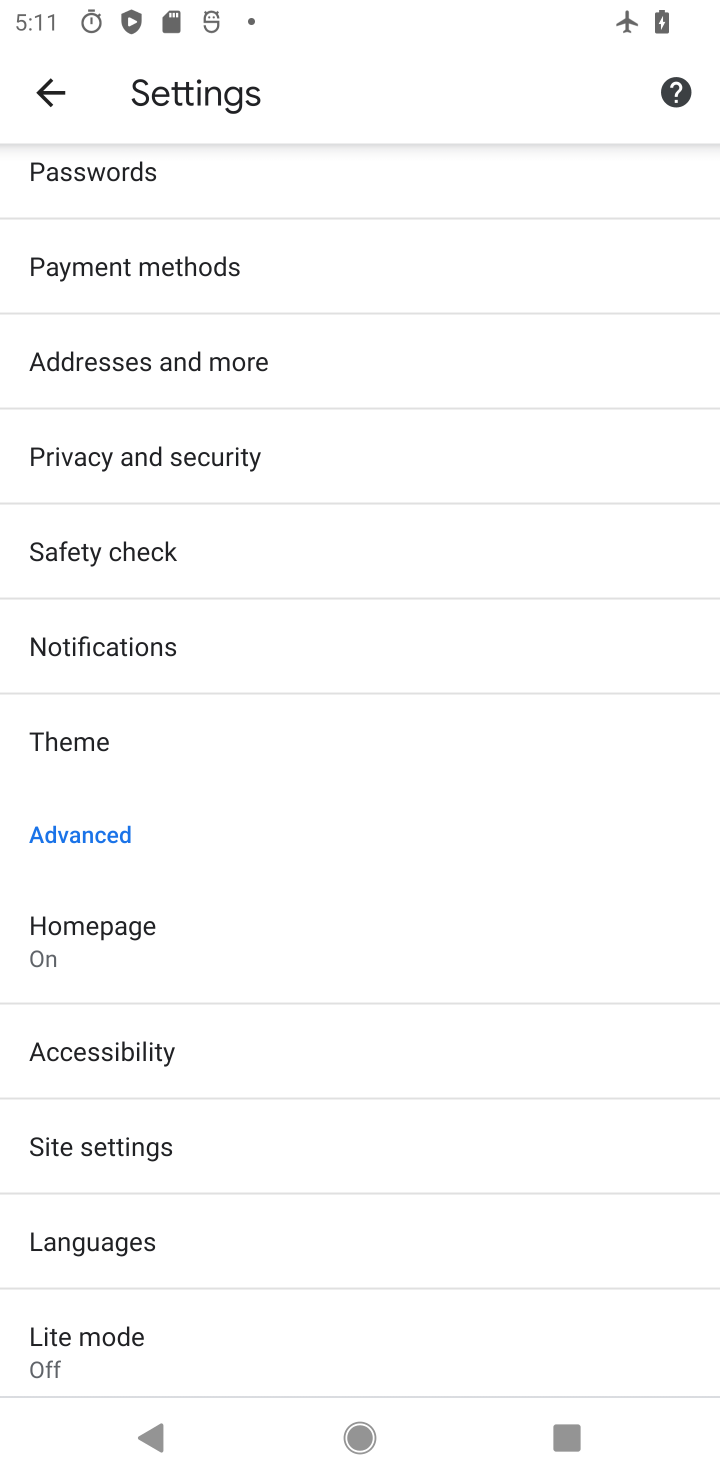
Step 30: click (116, 1330)
Your task to perform on an android device: turn off data saver in the chrome app Image 31: 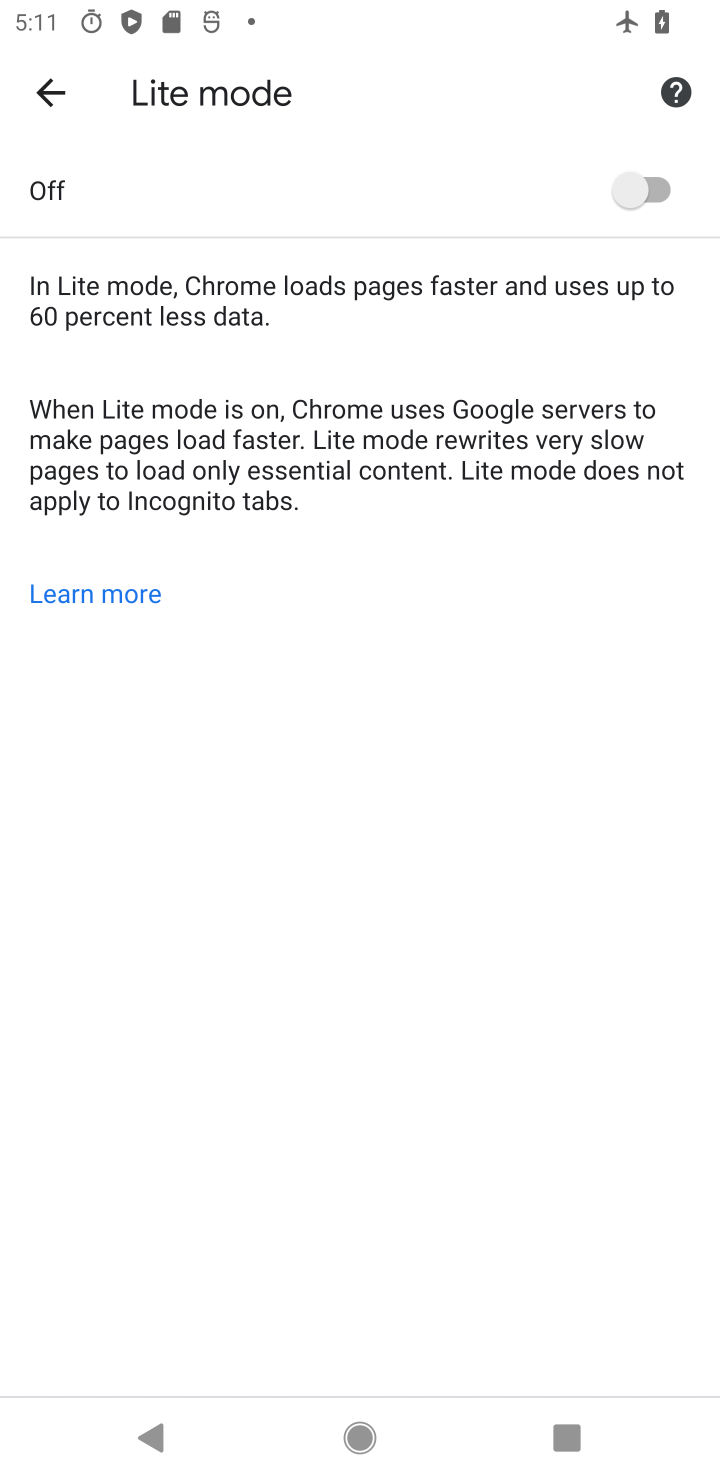
Step 31: task complete